Your task to perform on an android device: delete the emails in spam in the gmail app Image 0: 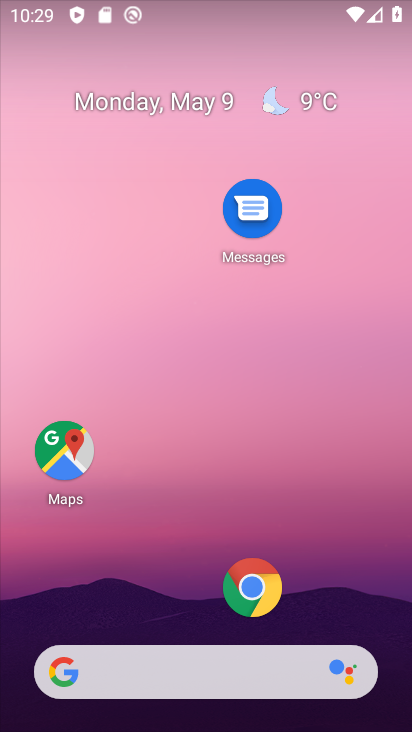
Step 0: drag from (209, 578) to (268, 94)
Your task to perform on an android device: delete the emails in spam in the gmail app Image 1: 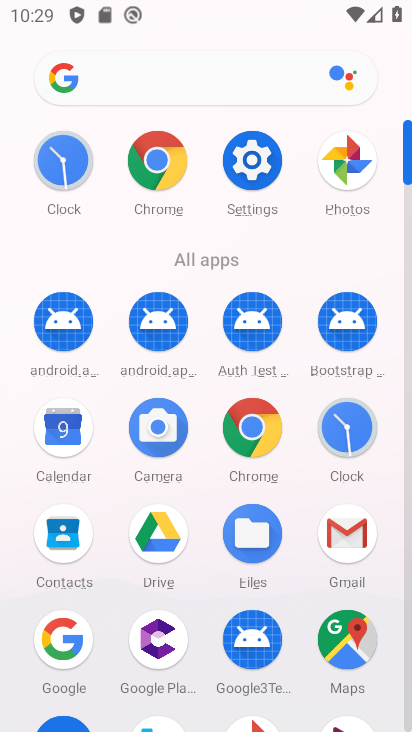
Step 1: click (339, 521)
Your task to perform on an android device: delete the emails in spam in the gmail app Image 2: 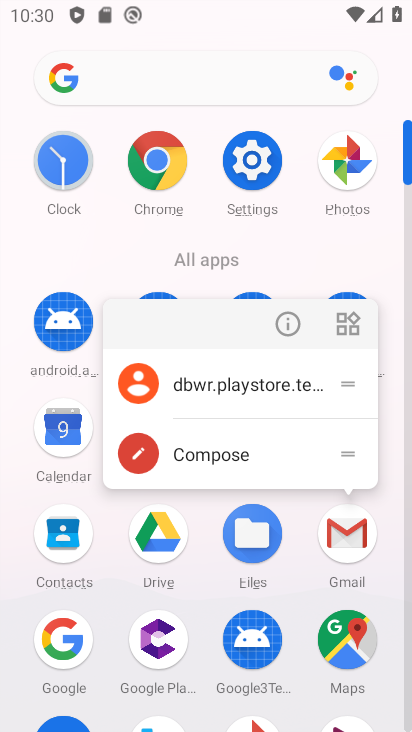
Step 2: click (285, 335)
Your task to perform on an android device: delete the emails in spam in the gmail app Image 3: 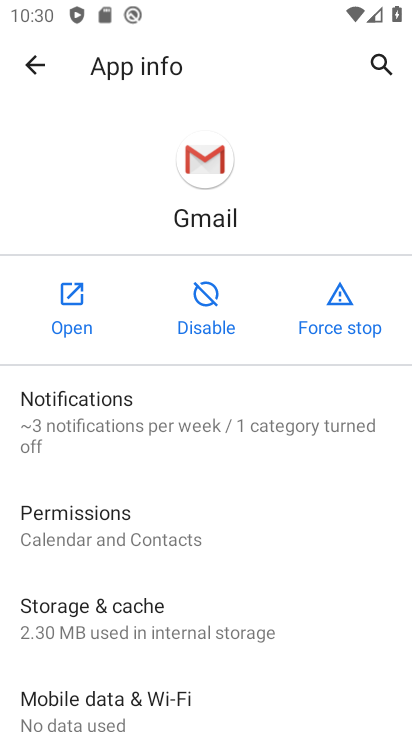
Step 3: click (79, 317)
Your task to perform on an android device: delete the emails in spam in the gmail app Image 4: 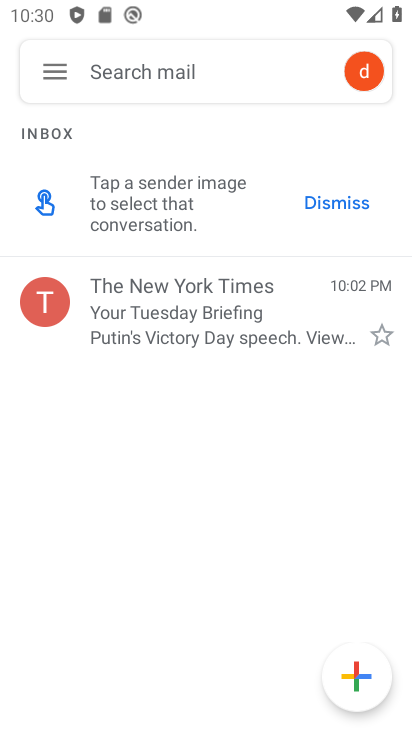
Step 4: click (70, 69)
Your task to perform on an android device: delete the emails in spam in the gmail app Image 5: 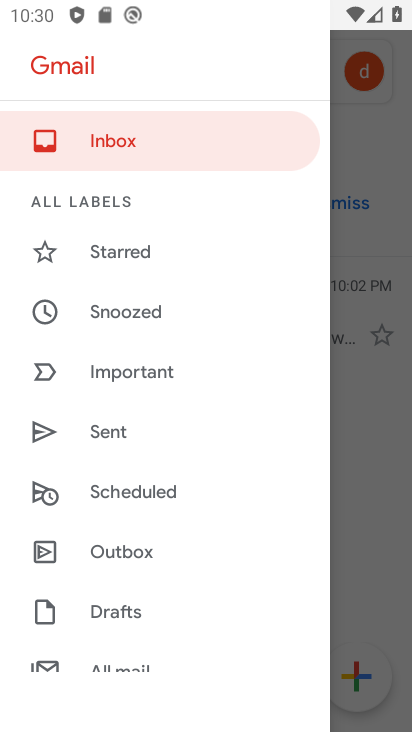
Step 5: drag from (153, 621) to (229, 177)
Your task to perform on an android device: delete the emails in spam in the gmail app Image 6: 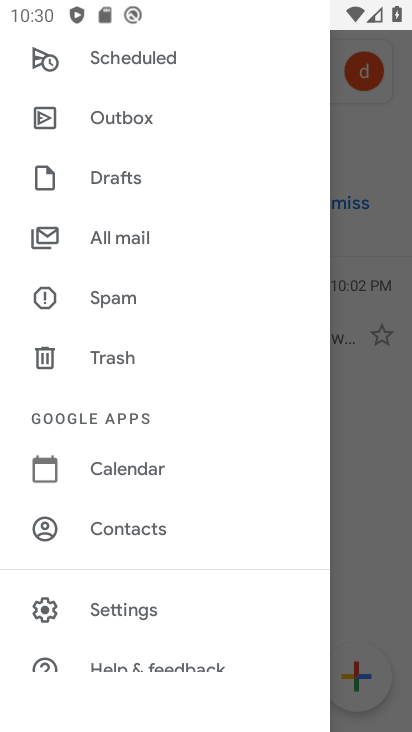
Step 6: click (134, 296)
Your task to perform on an android device: delete the emails in spam in the gmail app Image 7: 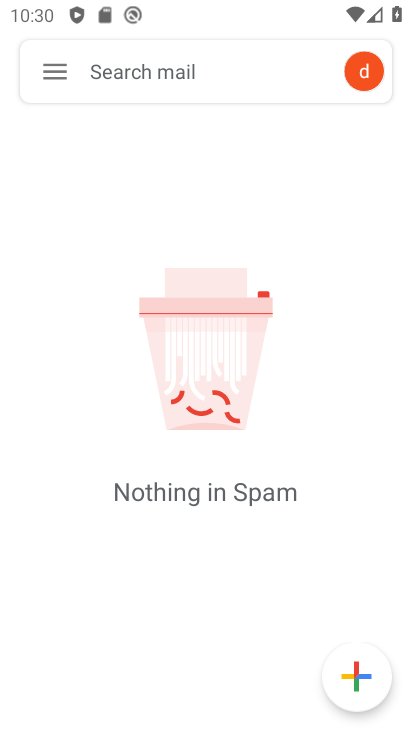
Step 7: task complete